Your task to perform on an android device: find photos in the google photos app Image 0: 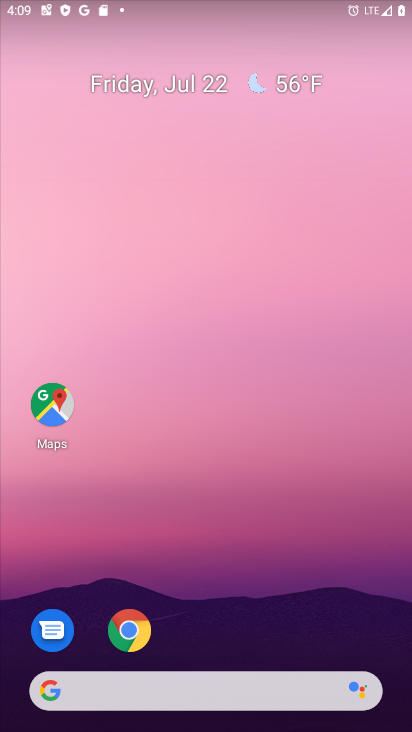
Step 0: drag from (166, 701) to (158, 114)
Your task to perform on an android device: find photos in the google photos app Image 1: 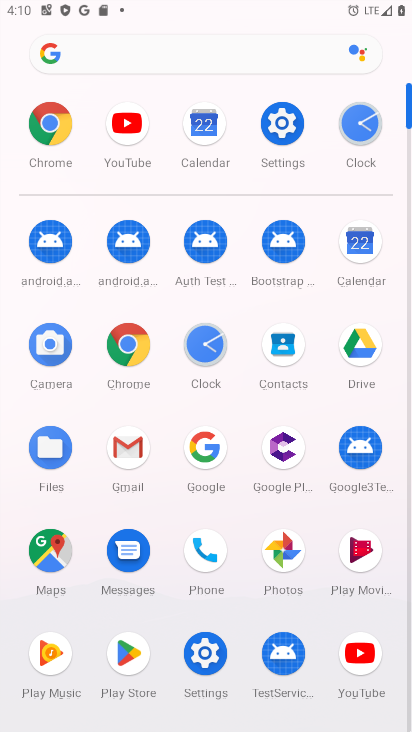
Step 1: click (267, 545)
Your task to perform on an android device: find photos in the google photos app Image 2: 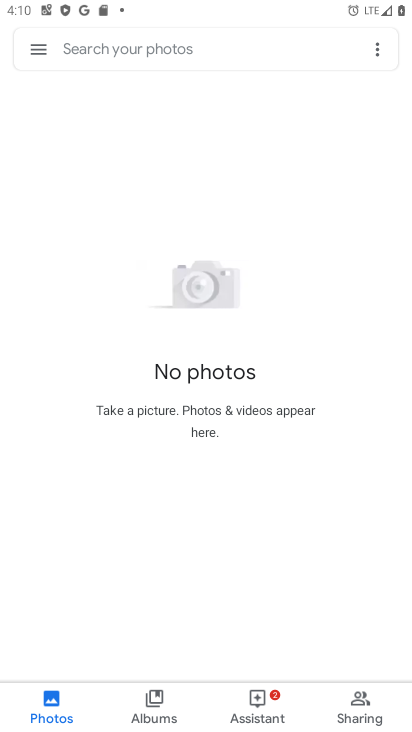
Step 2: click (46, 700)
Your task to perform on an android device: find photos in the google photos app Image 3: 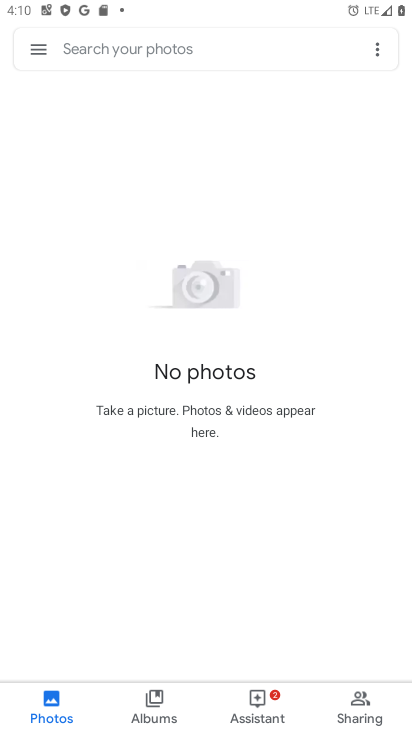
Step 3: task complete